Your task to perform on an android device: toggle translation in the chrome app Image 0: 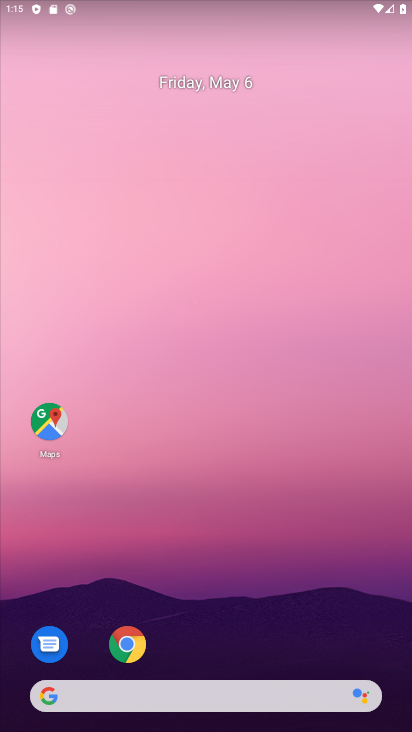
Step 0: click (121, 643)
Your task to perform on an android device: toggle translation in the chrome app Image 1: 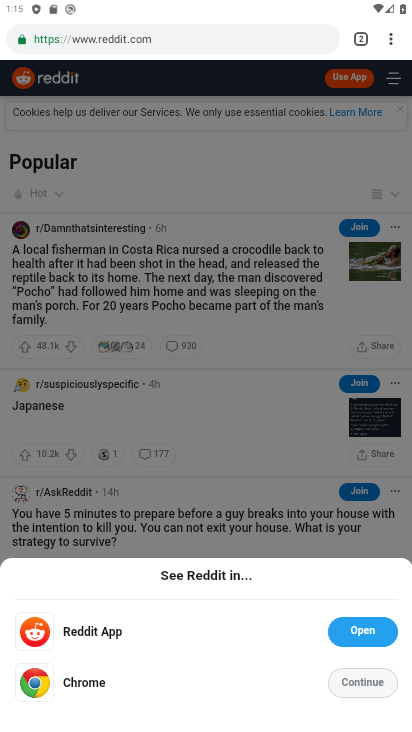
Step 1: click (182, 425)
Your task to perform on an android device: toggle translation in the chrome app Image 2: 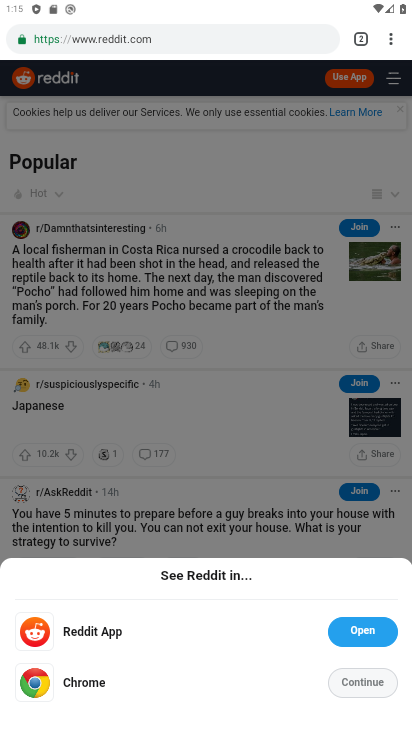
Step 2: drag from (388, 32) to (254, 474)
Your task to perform on an android device: toggle translation in the chrome app Image 3: 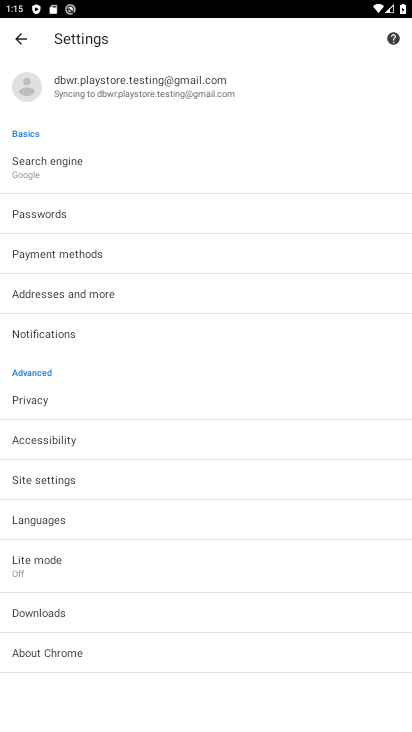
Step 3: click (54, 516)
Your task to perform on an android device: toggle translation in the chrome app Image 4: 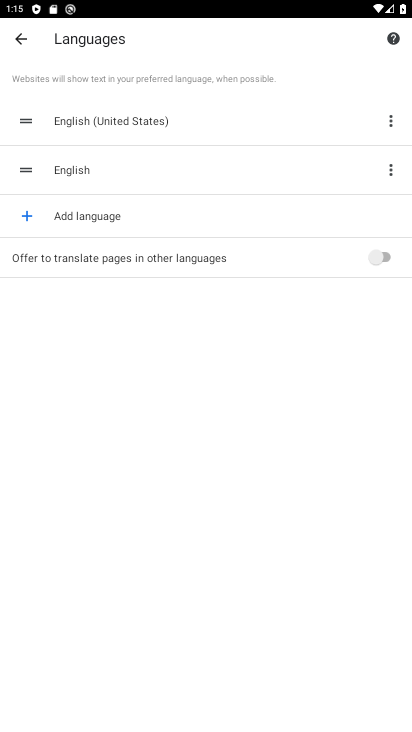
Step 4: click (382, 251)
Your task to perform on an android device: toggle translation in the chrome app Image 5: 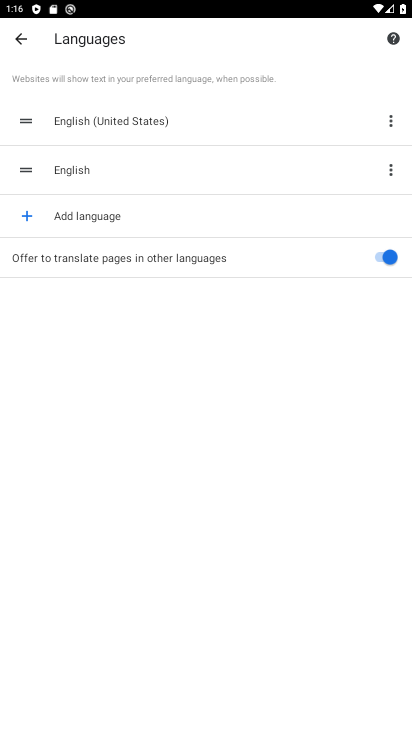
Step 5: task complete